Your task to perform on an android device: check out phone information Image 0: 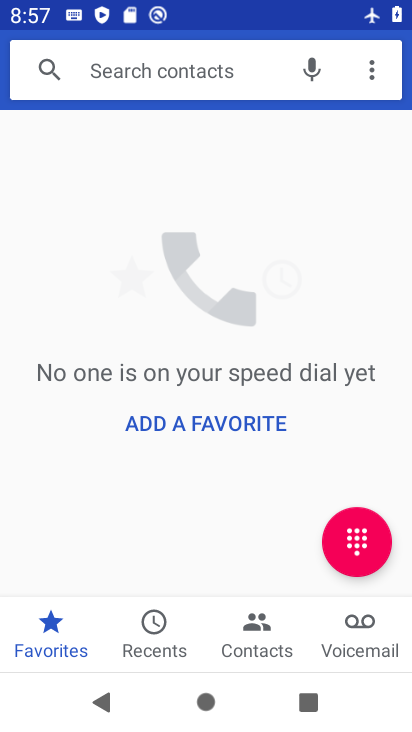
Step 0: press home button
Your task to perform on an android device: check out phone information Image 1: 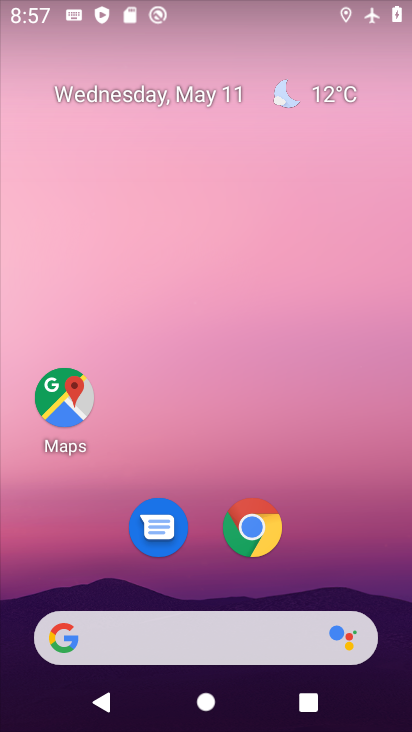
Step 1: drag from (340, 495) to (340, 68)
Your task to perform on an android device: check out phone information Image 2: 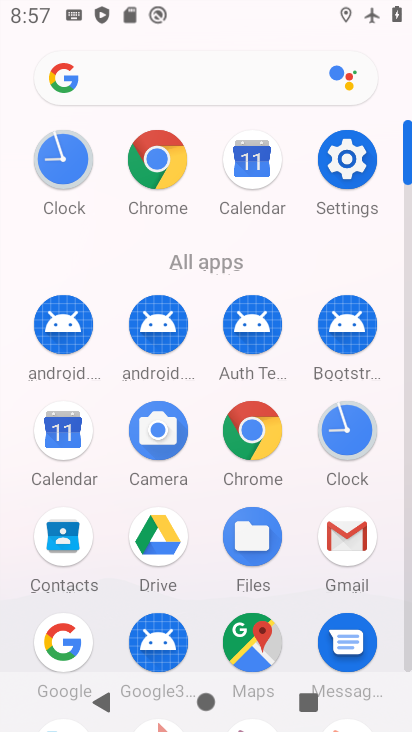
Step 2: drag from (299, 463) to (314, 165)
Your task to perform on an android device: check out phone information Image 3: 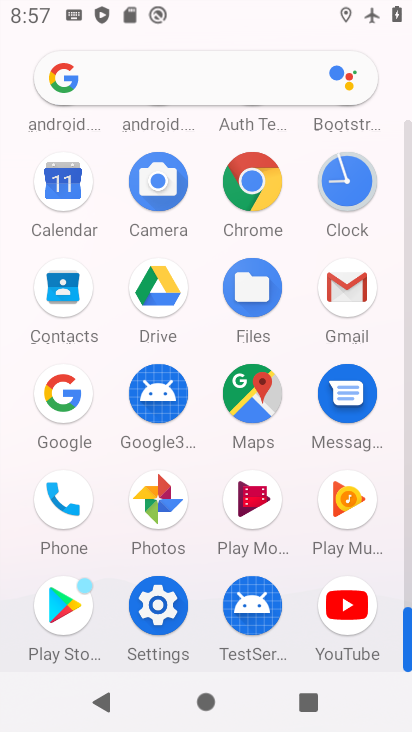
Step 3: click (53, 483)
Your task to perform on an android device: check out phone information Image 4: 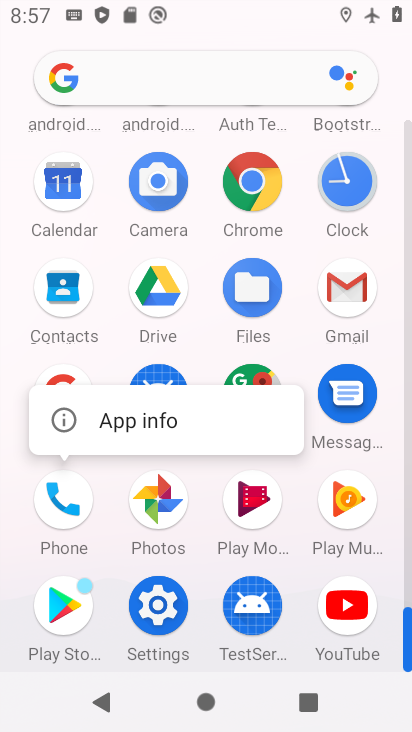
Step 4: click (141, 413)
Your task to perform on an android device: check out phone information Image 5: 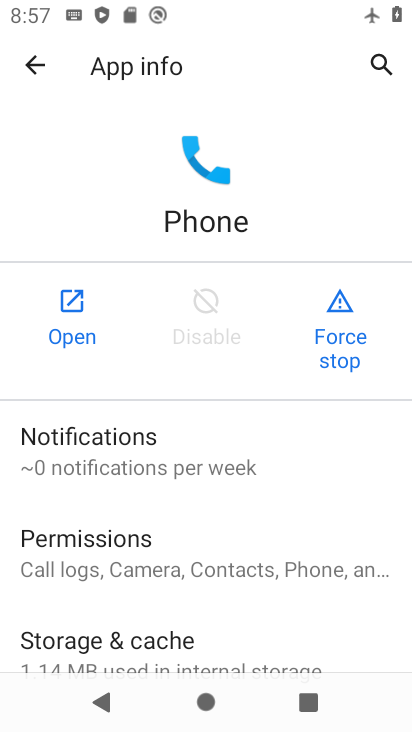
Step 5: task complete